Your task to perform on an android device: change alarm snooze length Image 0: 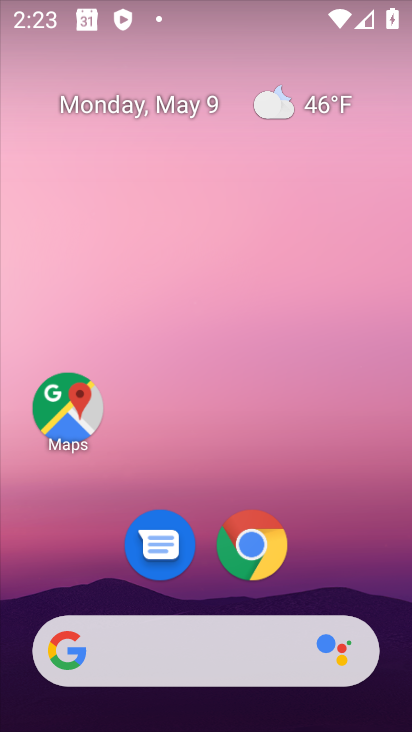
Step 0: drag from (214, 590) to (221, 230)
Your task to perform on an android device: change alarm snooze length Image 1: 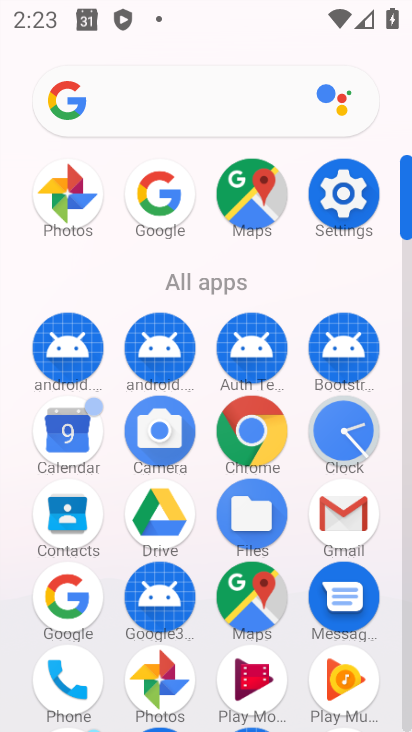
Step 1: click (333, 452)
Your task to perform on an android device: change alarm snooze length Image 2: 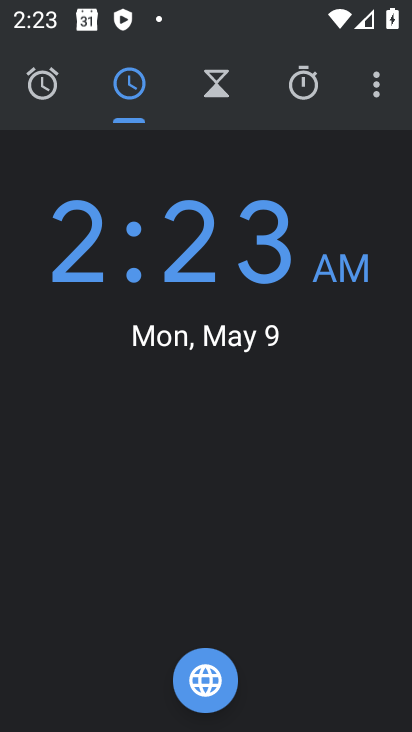
Step 2: click (381, 103)
Your task to perform on an android device: change alarm snooze length Image 3: 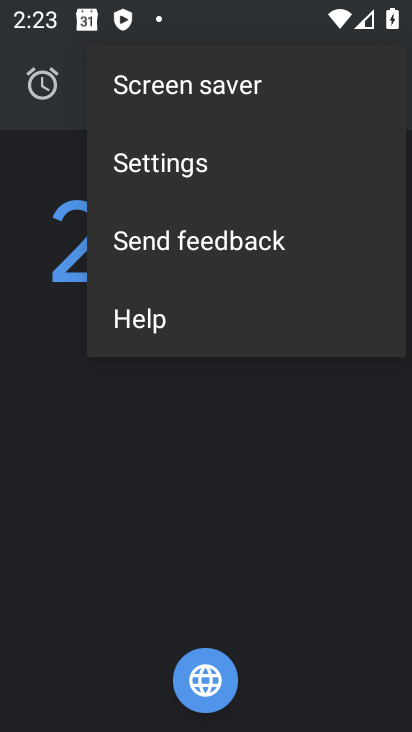
Step 3: click (167, 156)
Your task to perform on an android device: change alarm snooze length Image 4: 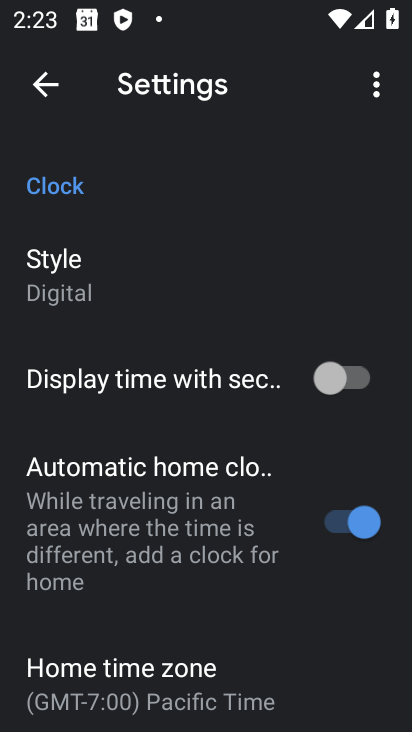
Step 4: drag from (191, 649) to (257, 236)
Your task to perform on an android device: change alarm snooze length Image 5: 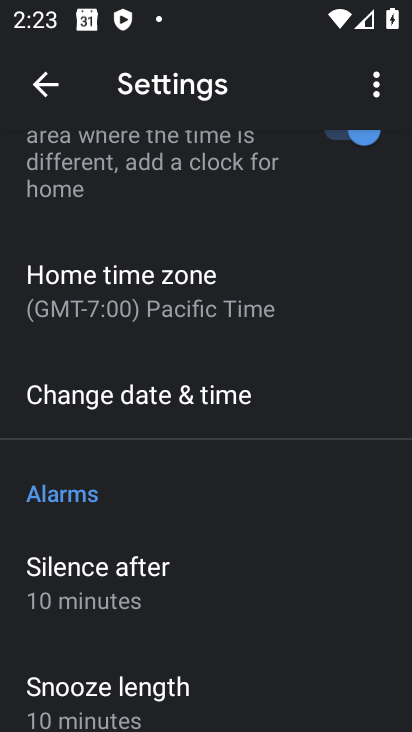
Step 5: drag from (209, 637) to (247, 446)
Your task to perform on an android device: change alarm snooze length Image 6: 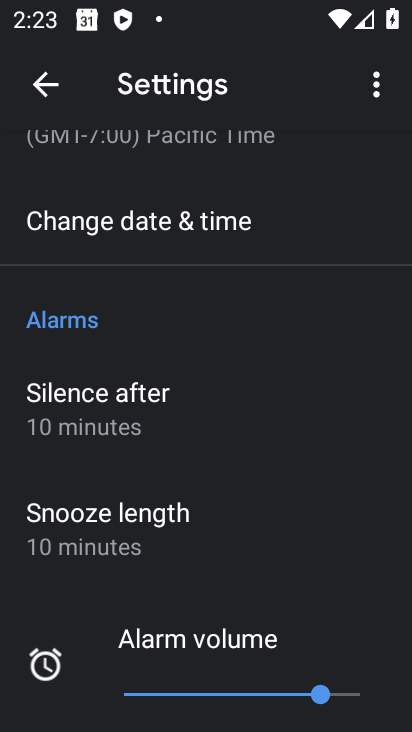
Step 6: click (168, 543)
Your task to perform on an android device: change alarm snooze length Image 7: 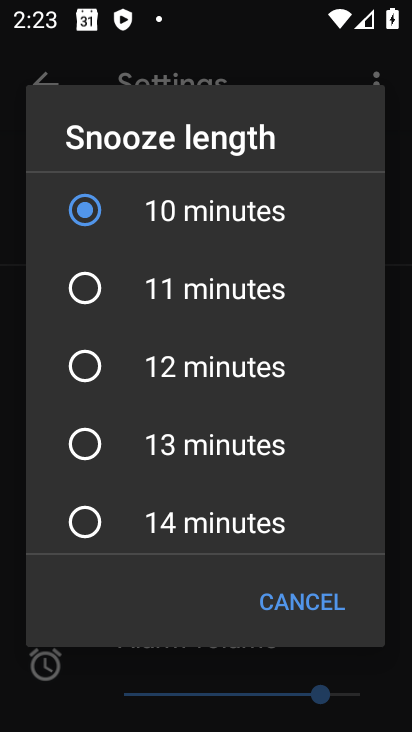
Step 7: click (185, 429)
Your task to perform on an android device: change alarm snooze length Image 8: 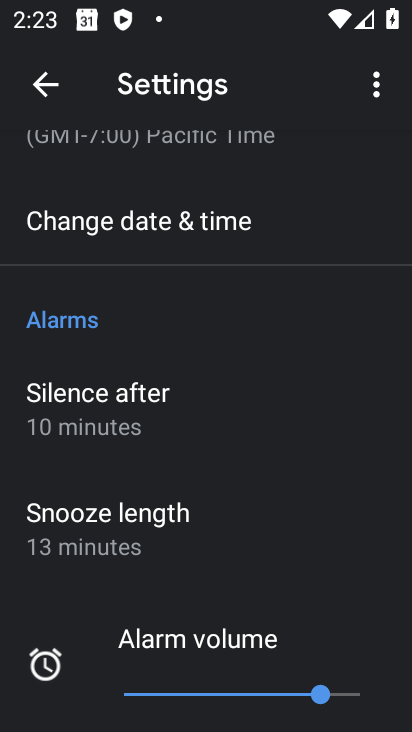
Step 8: task complete